Your task to perform on an android device: star an email in the gmail app Image 0: 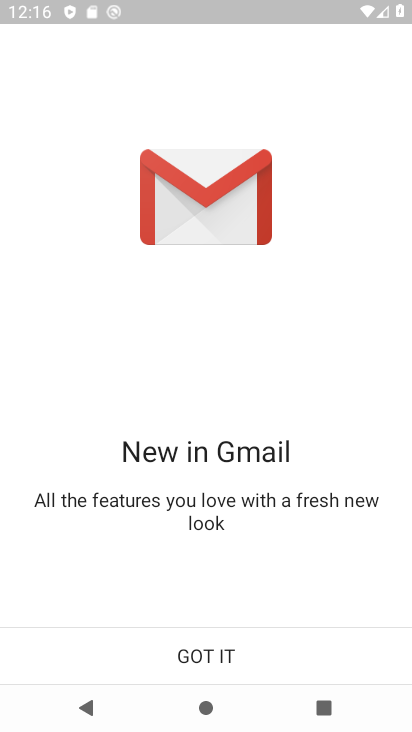
Step 0: click (379, 647)
Your task to perform on an android device: star an email in the gmail app Image 1: 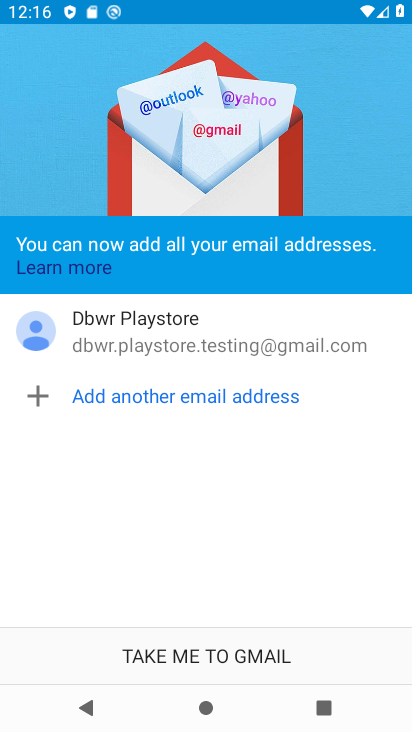
Step 1: click (379, 647)
Your task to perform on an android device: star an email in the gmail app Image 2: 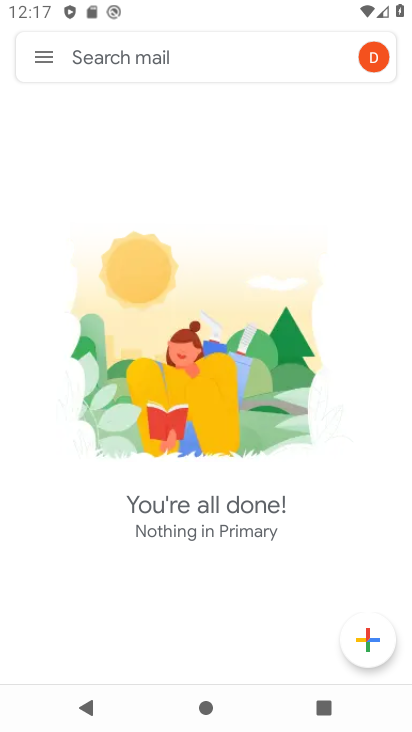
Step 2: click (38, 52)
Your task to perform on an android device: star an email in the gmail app Image 3: 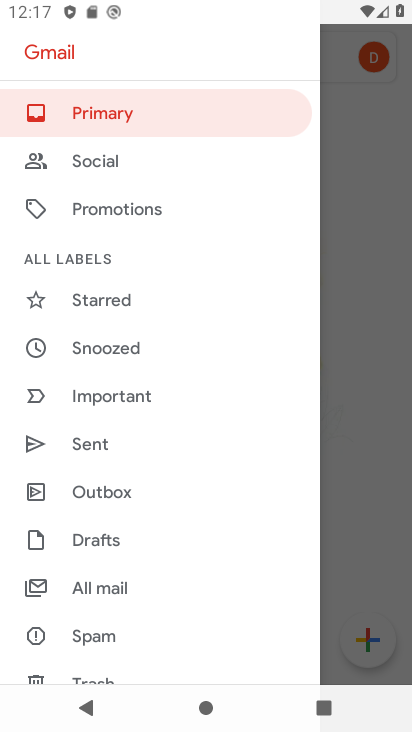
Step 3: click (207, 593)
Your task to perform on an android device: star an email in the gmail app Image 4: 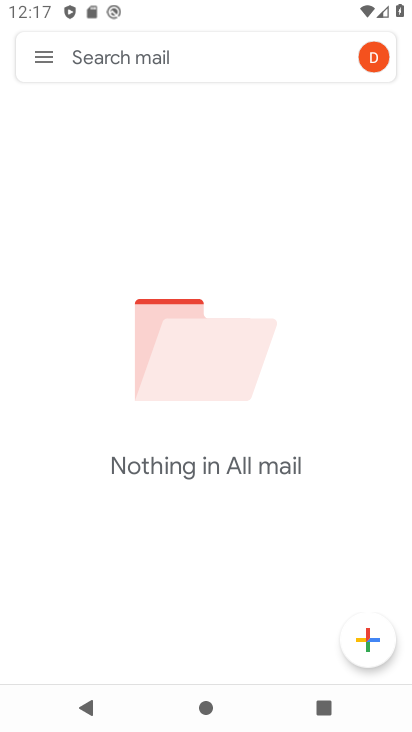
Step 4: task complete